Your task to perform on an android device: toggle translation in the chrome app Image 0: 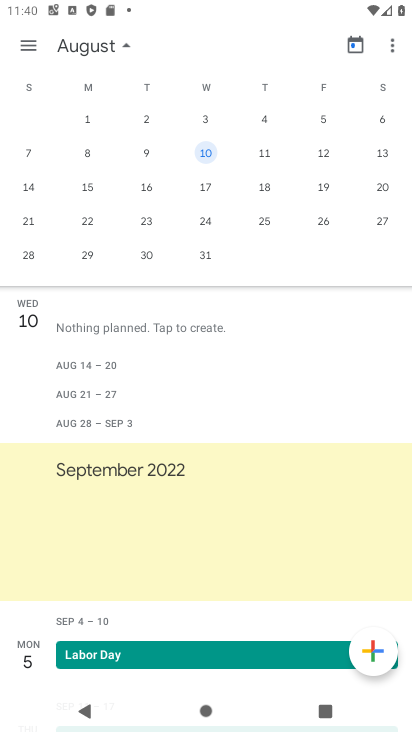
Step 0: press home button
Your task to perform on an android device: toggle translation in the chrome app Image 1: 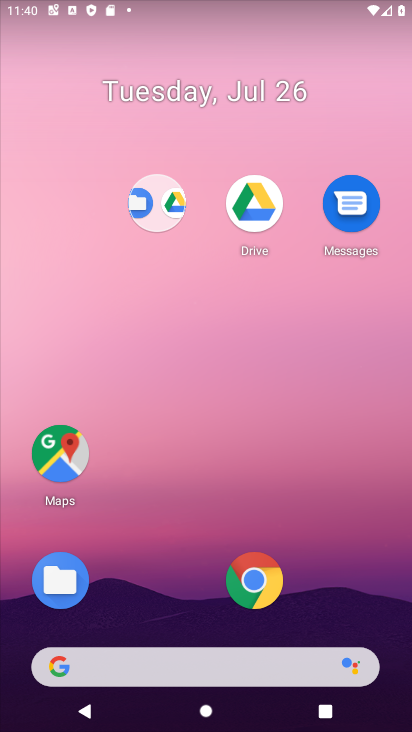
Step 1: click (251, 592)
Your task to perform on an android device: toggle translation in the chrome app Image 2: 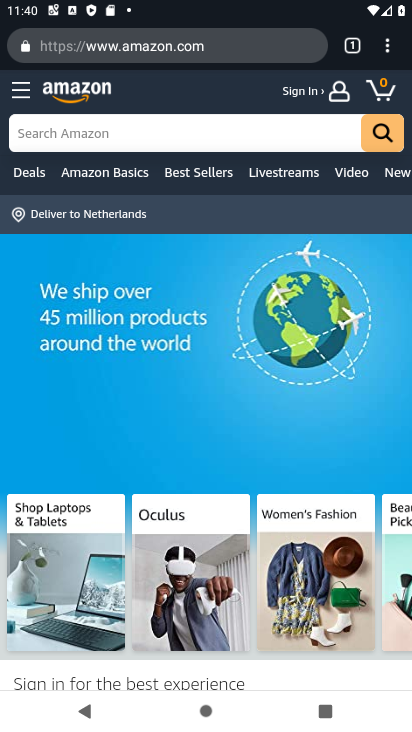
Step 2: click (400, 49)
Your task to perform on an android device: toggle translation in the chrome app Image 3: 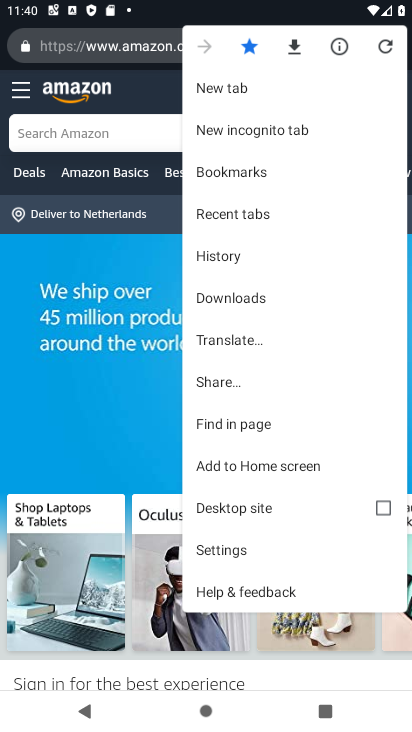
Step 3: click (224, 560)
Your task to perform on an android device: toggle translation in the chrome app Image 4: 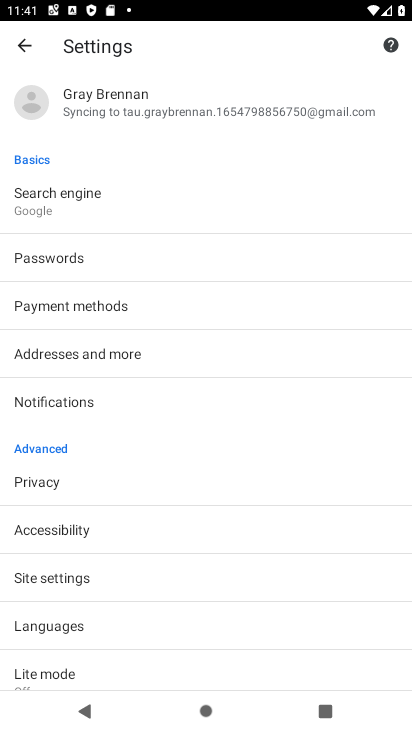
Step 4: click (97, 629)
Your task to perform on an android device: toggle translation in the chrome app Image 5: 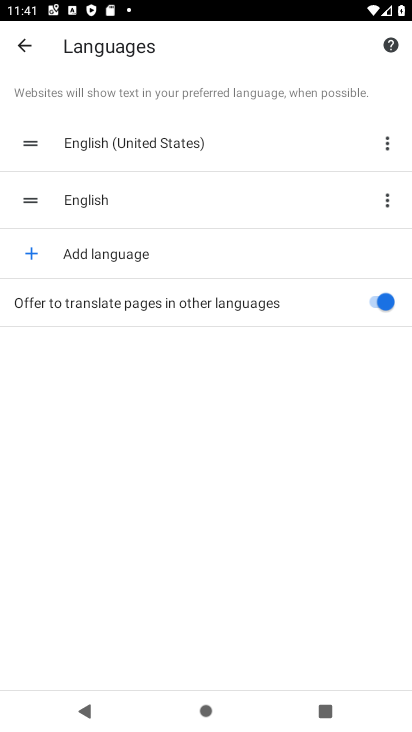
Step 5: click (383, 289)
Your task to perform on an android device: toggle translation in the chrome app Image 6: 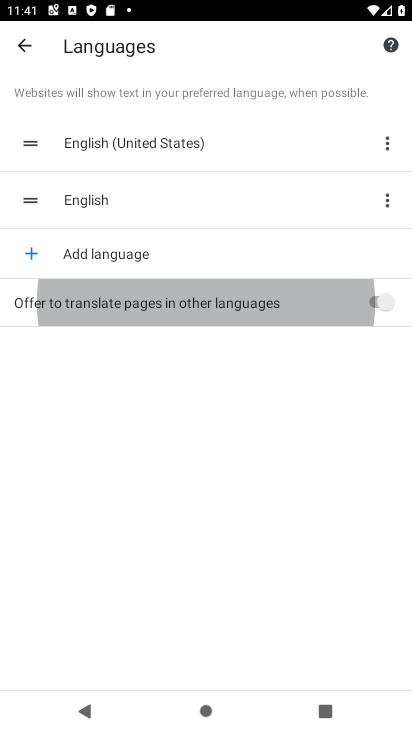
Step 6: click (383, 289)
Your task to perform on an android device: toggle translation in the chrome app Image 7: 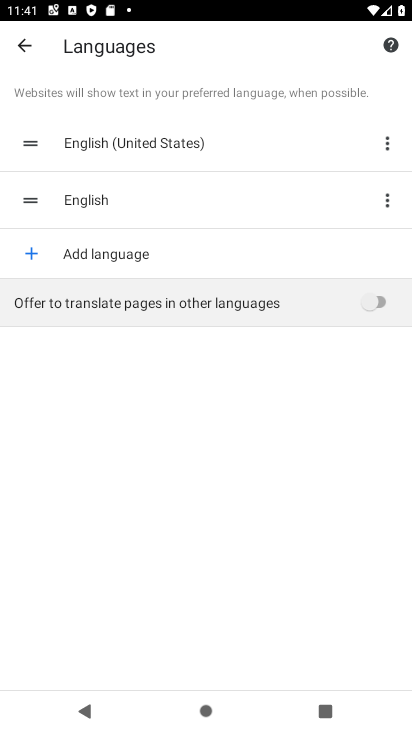
Step 7: click (383, 289)
Your task to perform on an android device: toggle translation in the chrome app Image 8: 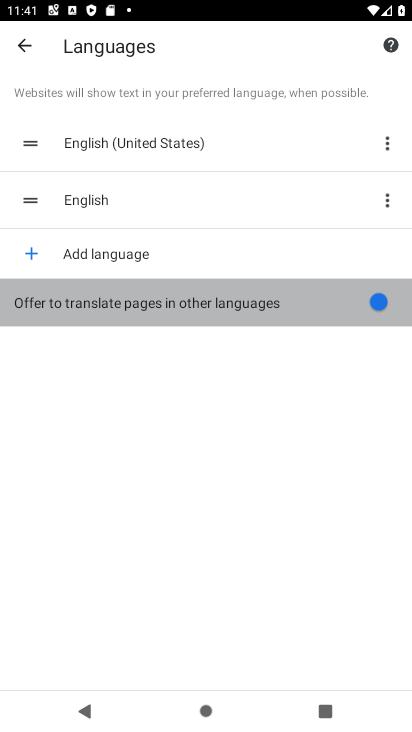
Step 8: click (383, 289)
Your task to perform on an android device: toggle translation in the chrome app Image 9: 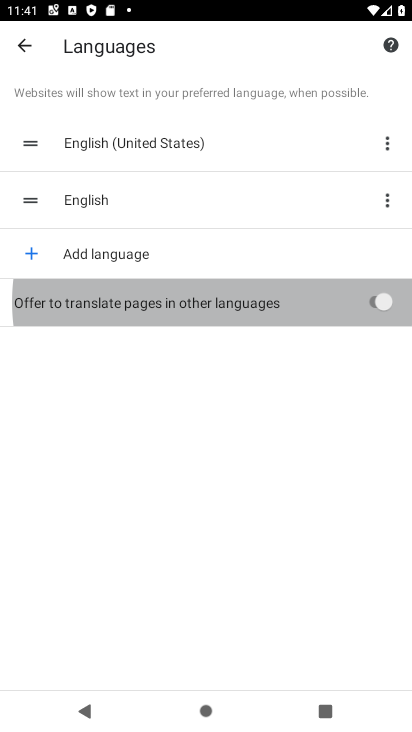
Step 9: click (383, 289)
Your task to perform on an android device: toggle translation in the chrome app Image 10: 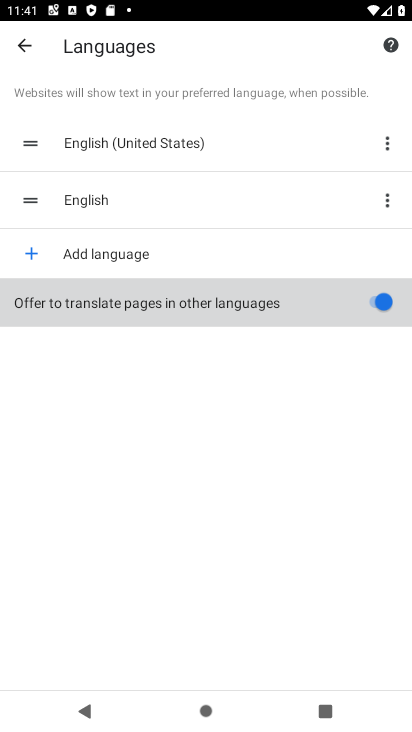
Step 10: click (383, 289)
Your task to perform on an android device: toggle translation in the chrome app Image 11: 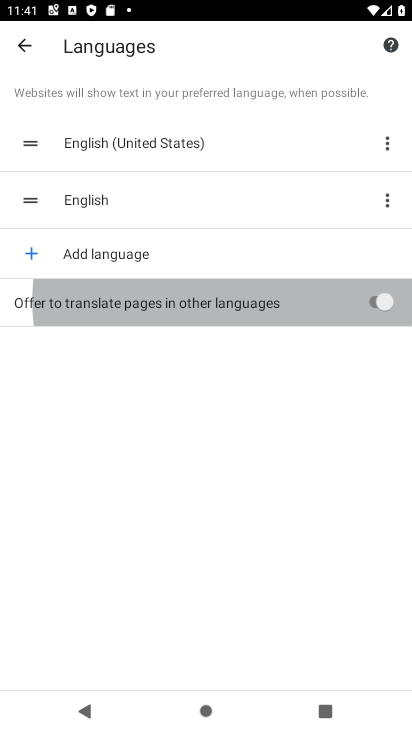
Step 11: click (383, 289)
Your task to perform on an android device: toggle translation in the chrome app Image 12: 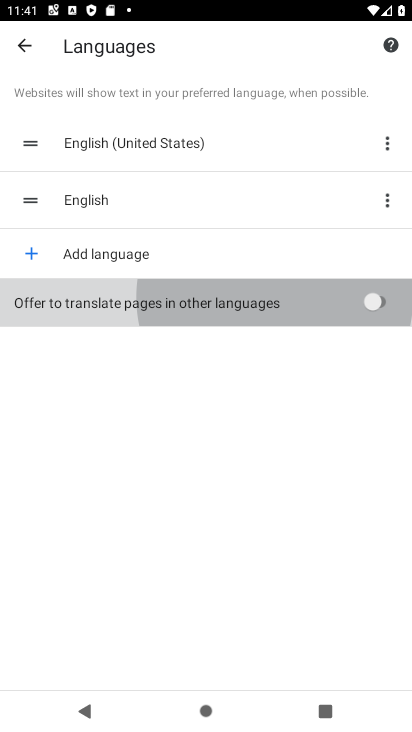
Step 12: click (383, 289)
Your task to perform on an android device: toggle translation in the chrome app Image 13: 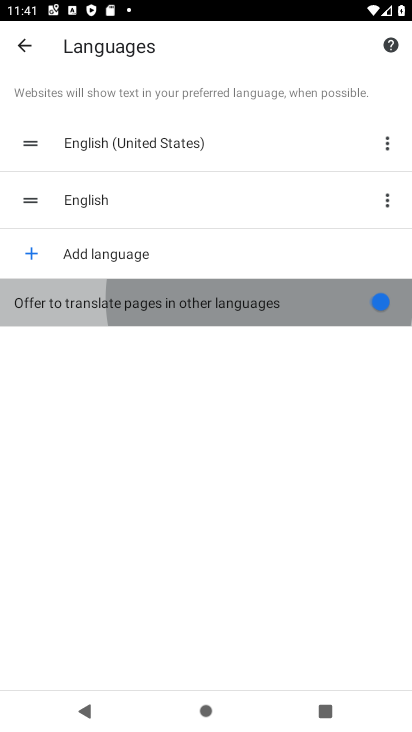
Step 13: click (383, 289)
Your task to perform on an android device: toggle translation in the chrome app Image 14: 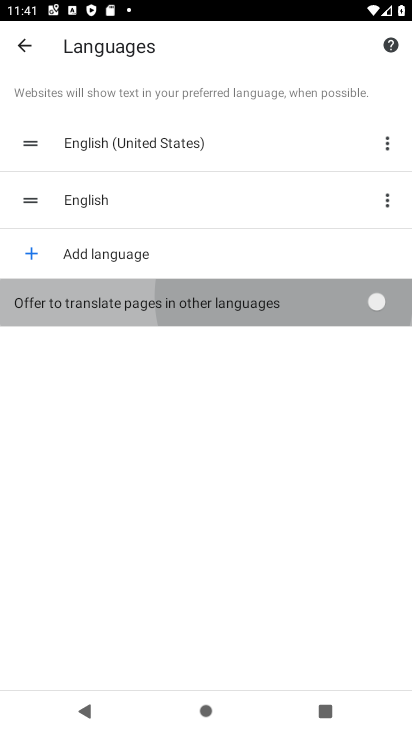
Step 14: click (383, 289)
Your task to perform on an android device: toggle translation in the chrome app Image 15: 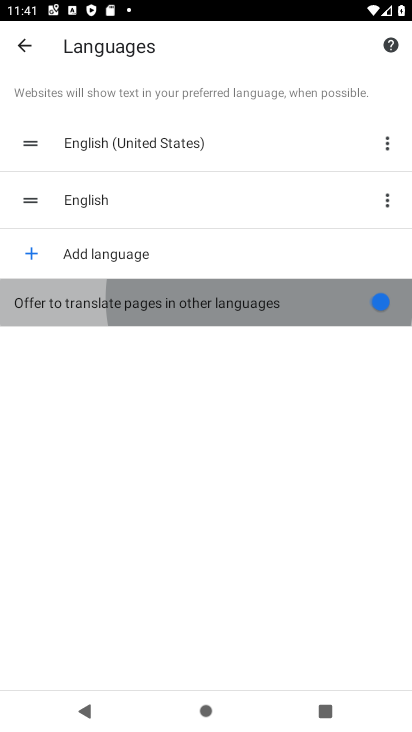
Step 15: click (383, 289)
Your task to perform on an android device: toggle translation in the chrome app Image 16: 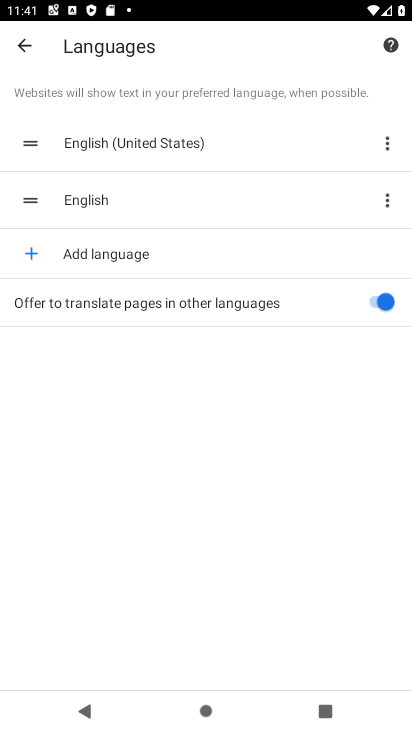
Step 16: task complete